Your task to perform on an android device: Open settings Image 0: 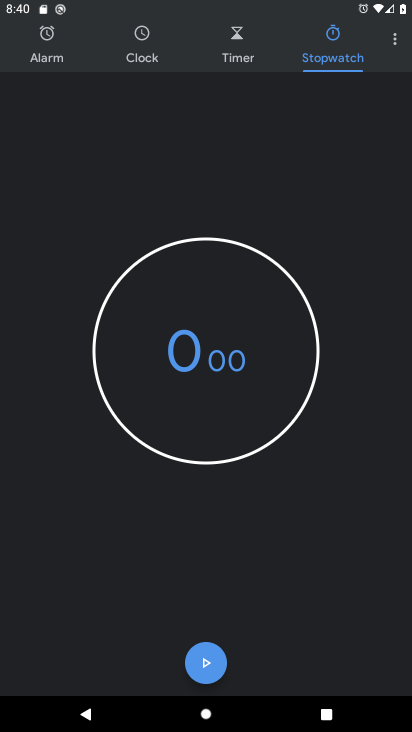
Step 0: press home button
Your task to perform on an android device: Open settings Image 1: 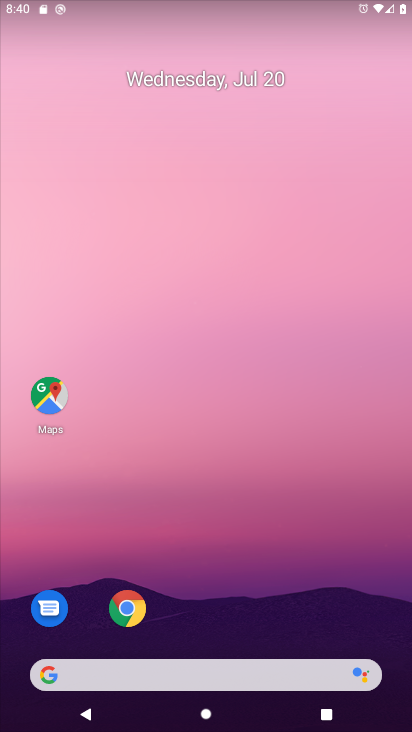
Step 1: drag from (196, 631) to (196, 235)
Your task to perform on an android device: Open settings Image 2: 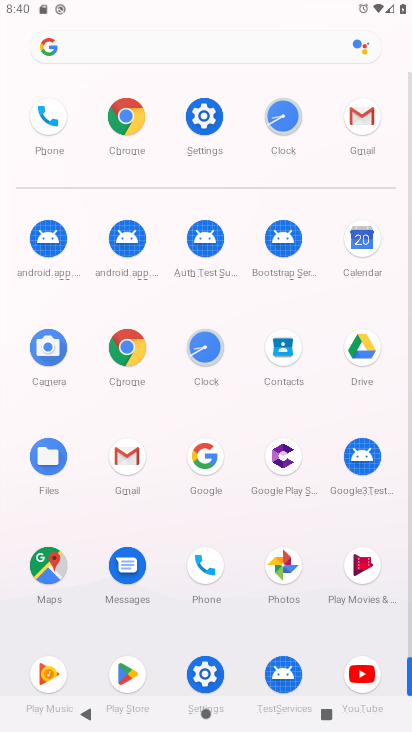
Step 2: click (203, 113)
Your task to perform on an android device: Open settings Image 3: 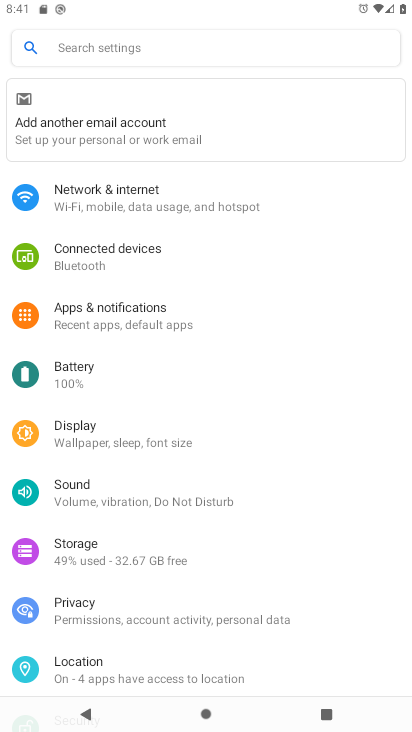
Step 3: task complete